Your task to perform on an android device: change keyboard looks Image 0: 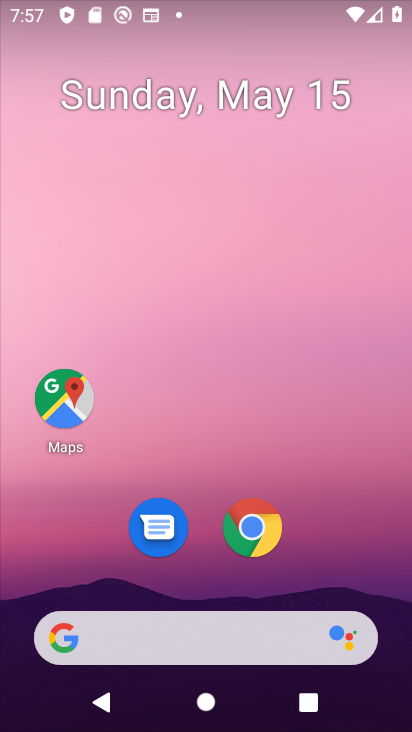
Step 0: drag from (187, 578) to (229, 155)
Your task to perform on an android device: change keyboard looks Image 1: 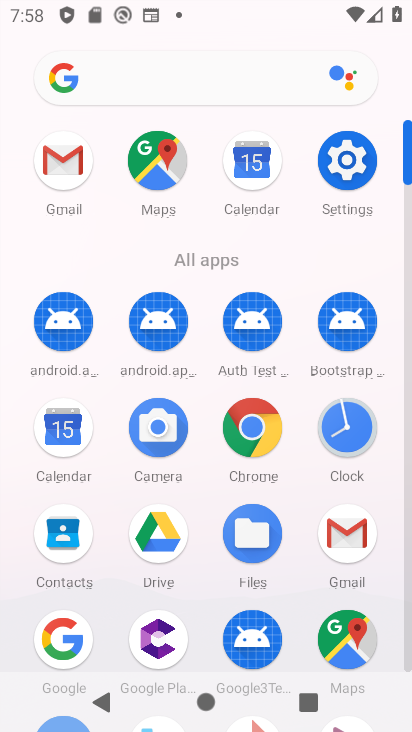
Step 1: click (335, 176)
Your task to perform on an android device: change keyboard looks Image 2: 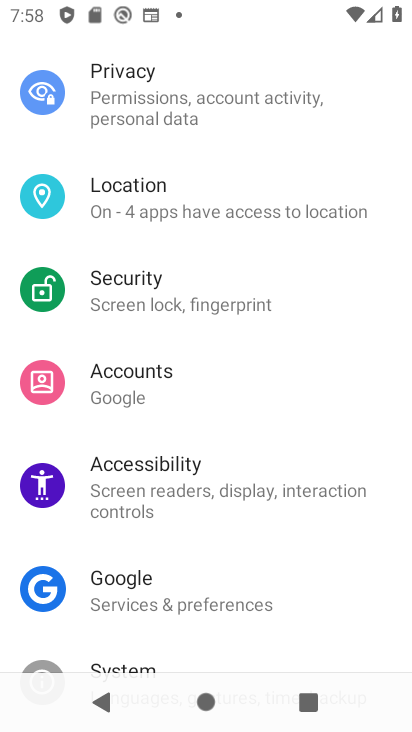
Step 2: drag from (256, 600) to (264, 305)
Your task to perform on an android device: change keyboard looks Image 3: 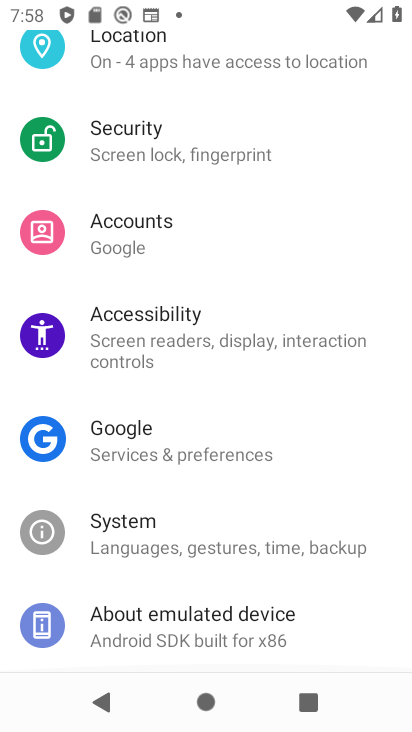
Step 3: drag from (261, 570) to (251, 321)
Your task to perform on an android device: change keyboard looks Image 4: 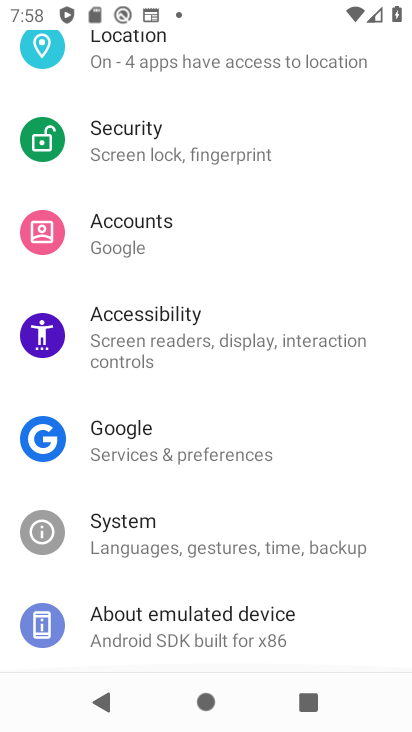
Step 4: drag from (204, 601) to (229, 439)
Your task to perform on an android device: change keyboard looks Image 5: 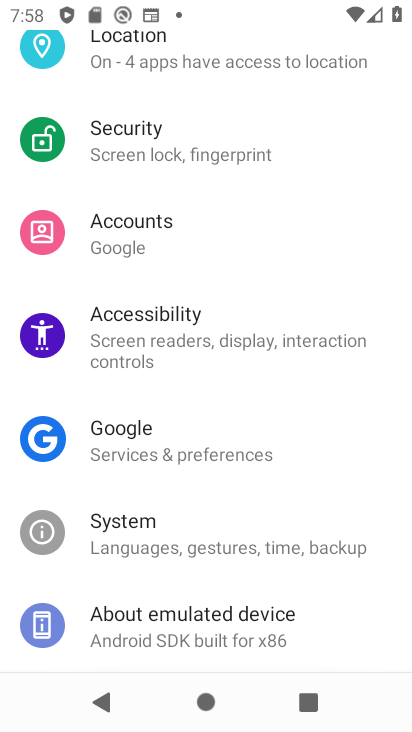
Step 5: drag from (237, 572) to (227, 291)
Your task to perform on an android device: change keyboard looks Image 6: 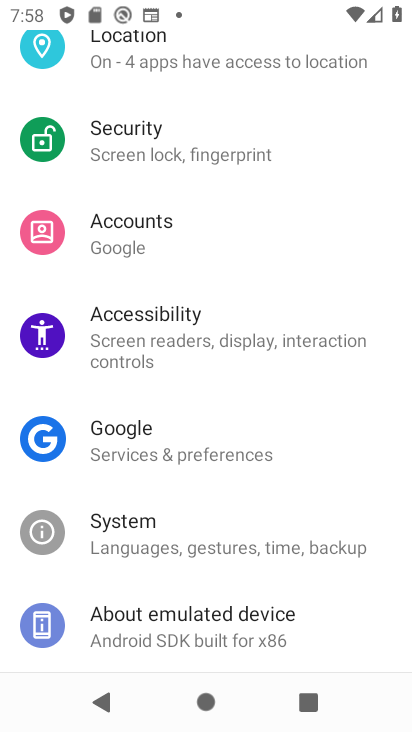
Step 6: click (198, 509)
Your task to perform on an android device: change keyboard looks Image 7: 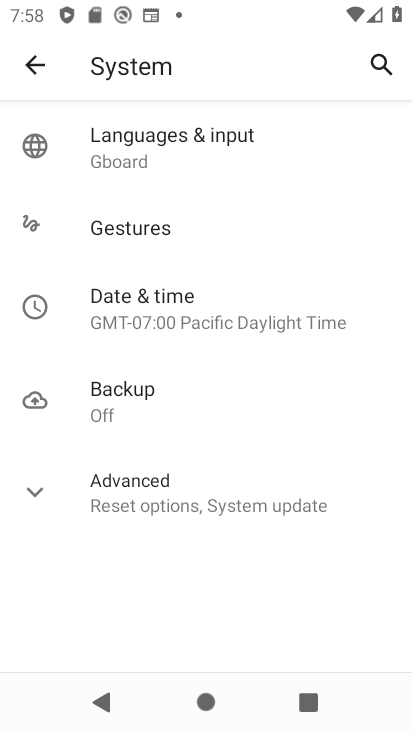
Step 7: click (184, 153)
Your task to perform on an android device: change keyboard looks Image 8: 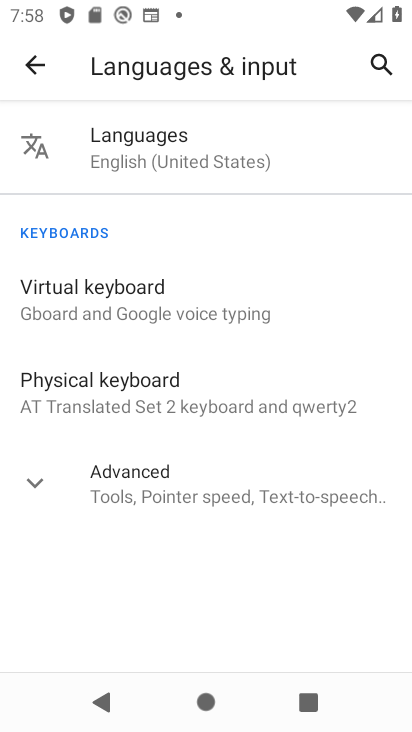
Step 8: click (148, 280)
Your task to perform on an android device: change keyboard looks Image 9: 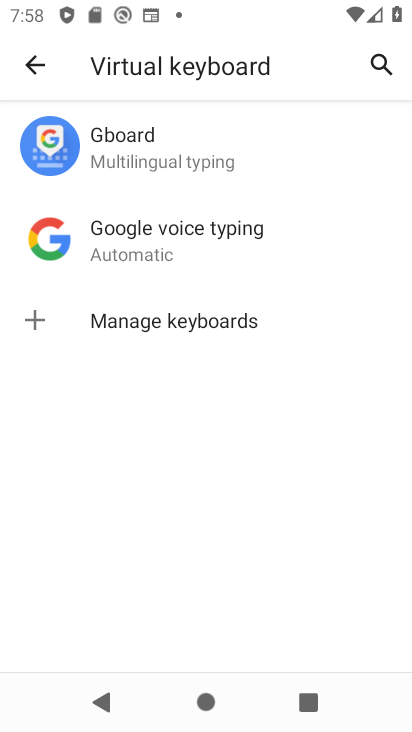
Step 9: click (149, 160)
Your task to perform on an android device: change keyboard looks Image 10: 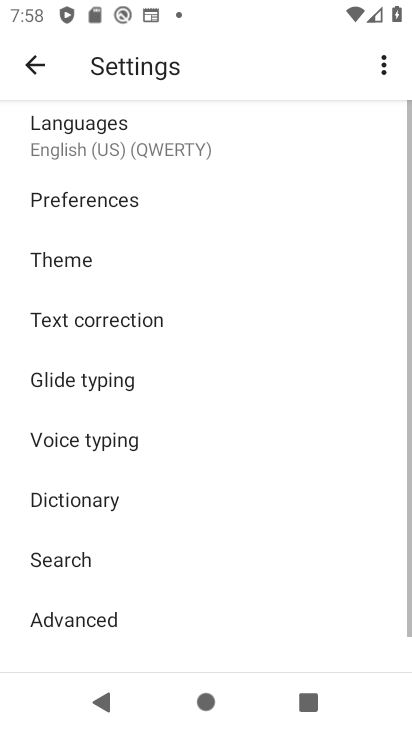
Step 10: click (73, 249)
Your task to perform on an android device: change keyboard looks Image 11: 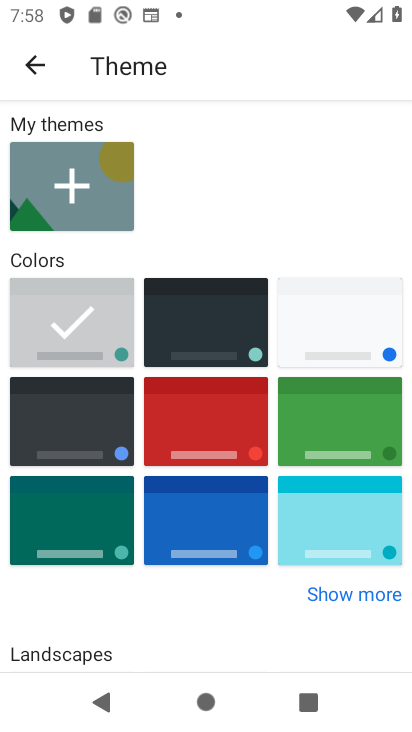
Step 11: click (215, 335)
Your task to perform on an android device: change keyboard looks Image 12: 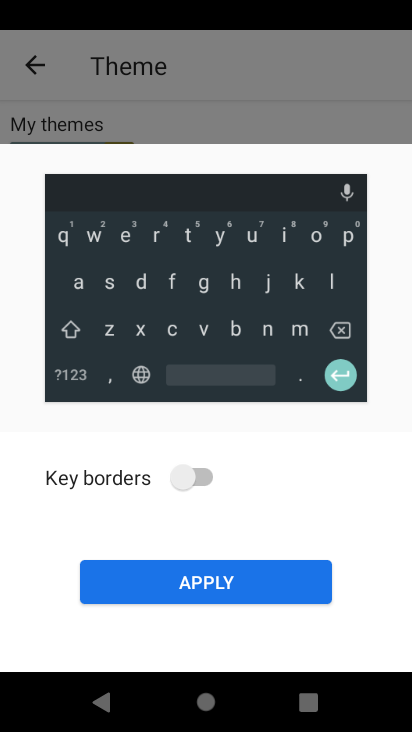
Step 12: click (156, 572)
Your task to perform on an android device: change keyboard looks Image 13: 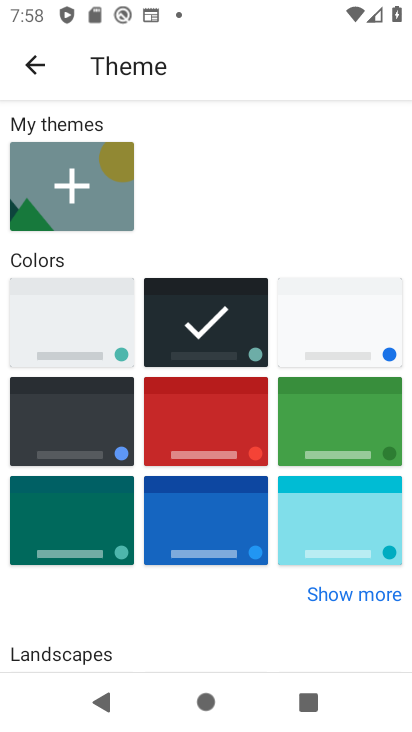
Step 13: task complete